Your task to perform on an android device: see sites visited before in the chrome app Image 0: 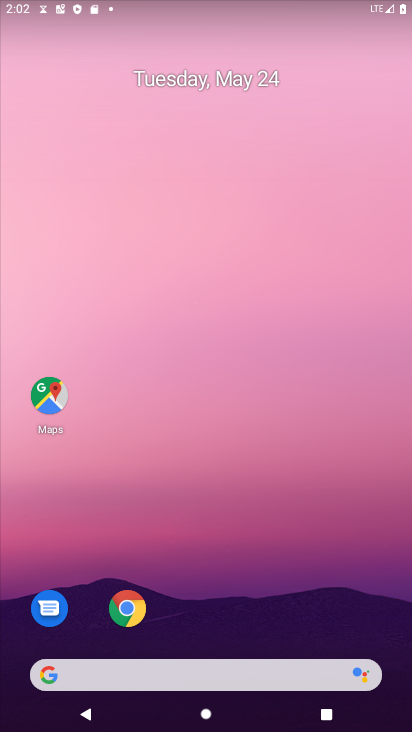
Step 0: drag from (258, 636) to (221, 134)
Your task to perform on an android device: see sites visited before in the chrome app Image 1: 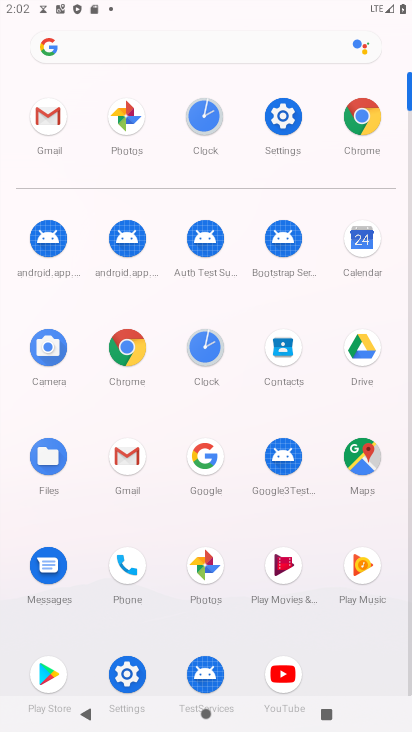
Step 1: click (352, 117)
Your task to perform on an android device: see sites visited before in the chrome app Image 2: 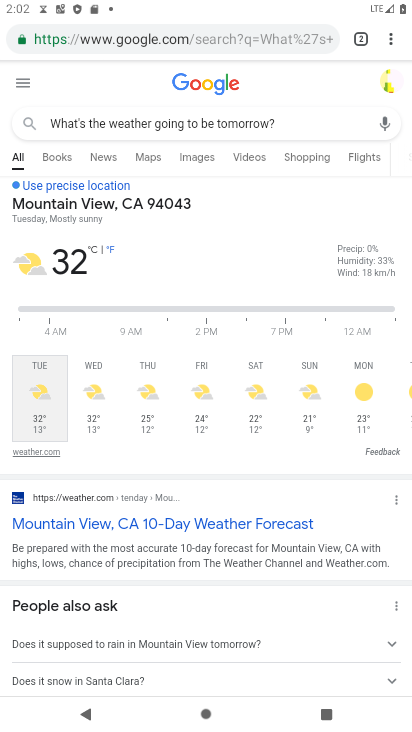
Step 2: click (385, 46)
Your task to perform on an android device: see sites visited before in the chrome app Image 3: 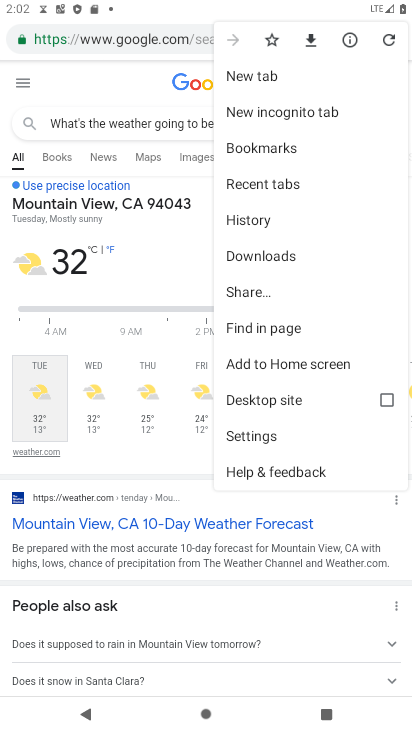
Step 3: click (288, 214)
Your task to perform on an android device: see sites visited before in the chrome app Image 4: 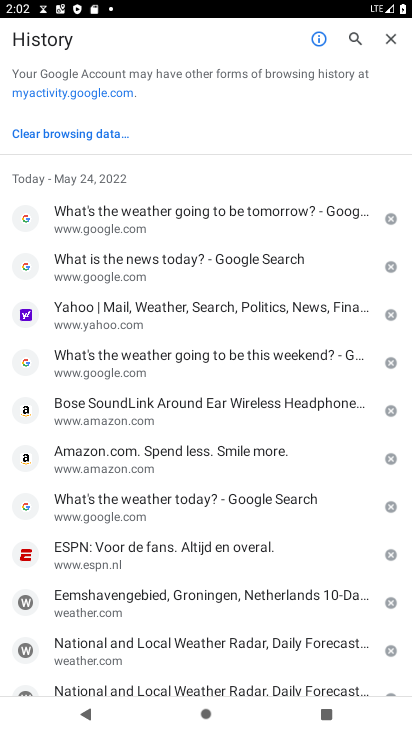
Step 4: task complete